Your task to perform on an android device: Clear the shopping cart on target. Search for razer blade on target, select the first entry, and add it to the cart. Image 0: 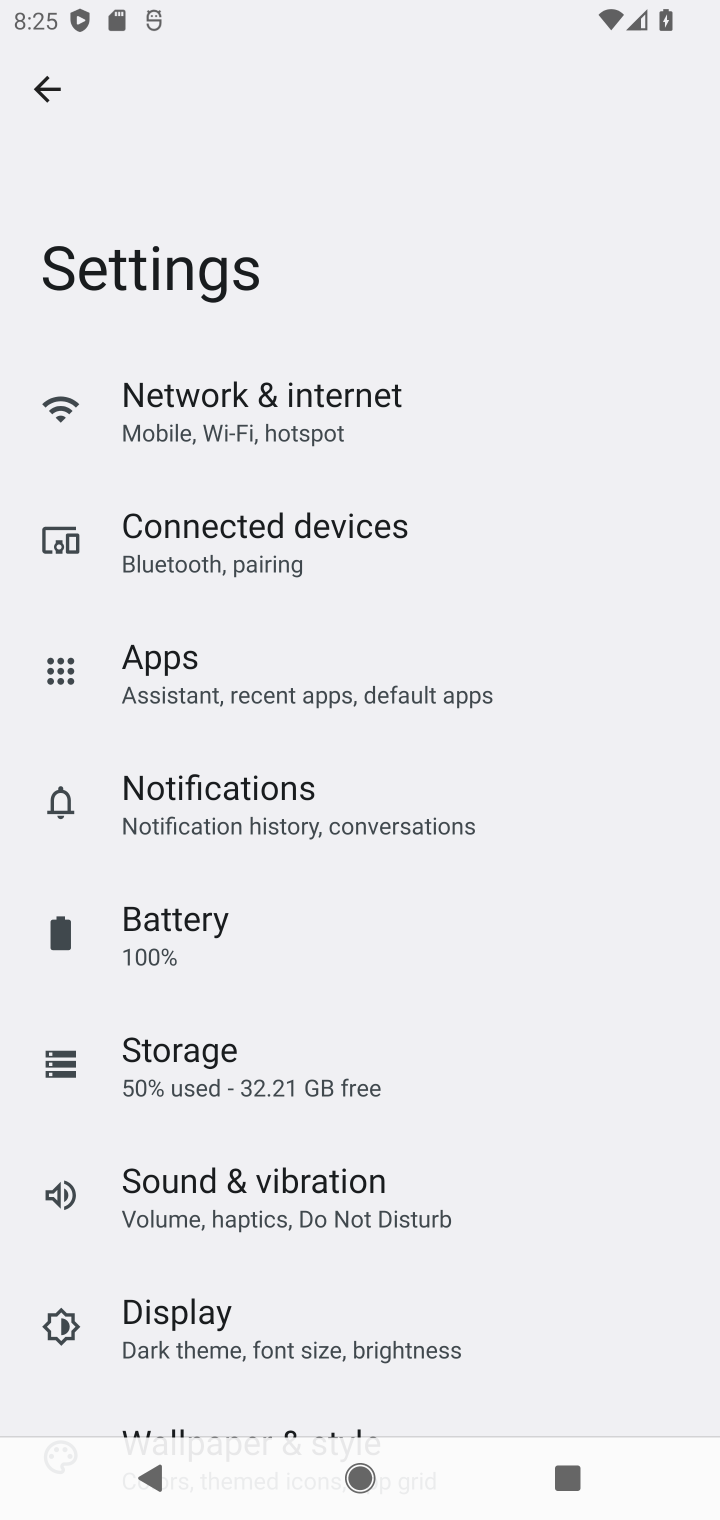
Step 0: press home button
Your task to perform on an android device: Clear the shopping cart on target. Search for razer blade on target, select the first entry, and add it to the cart. Image 1: 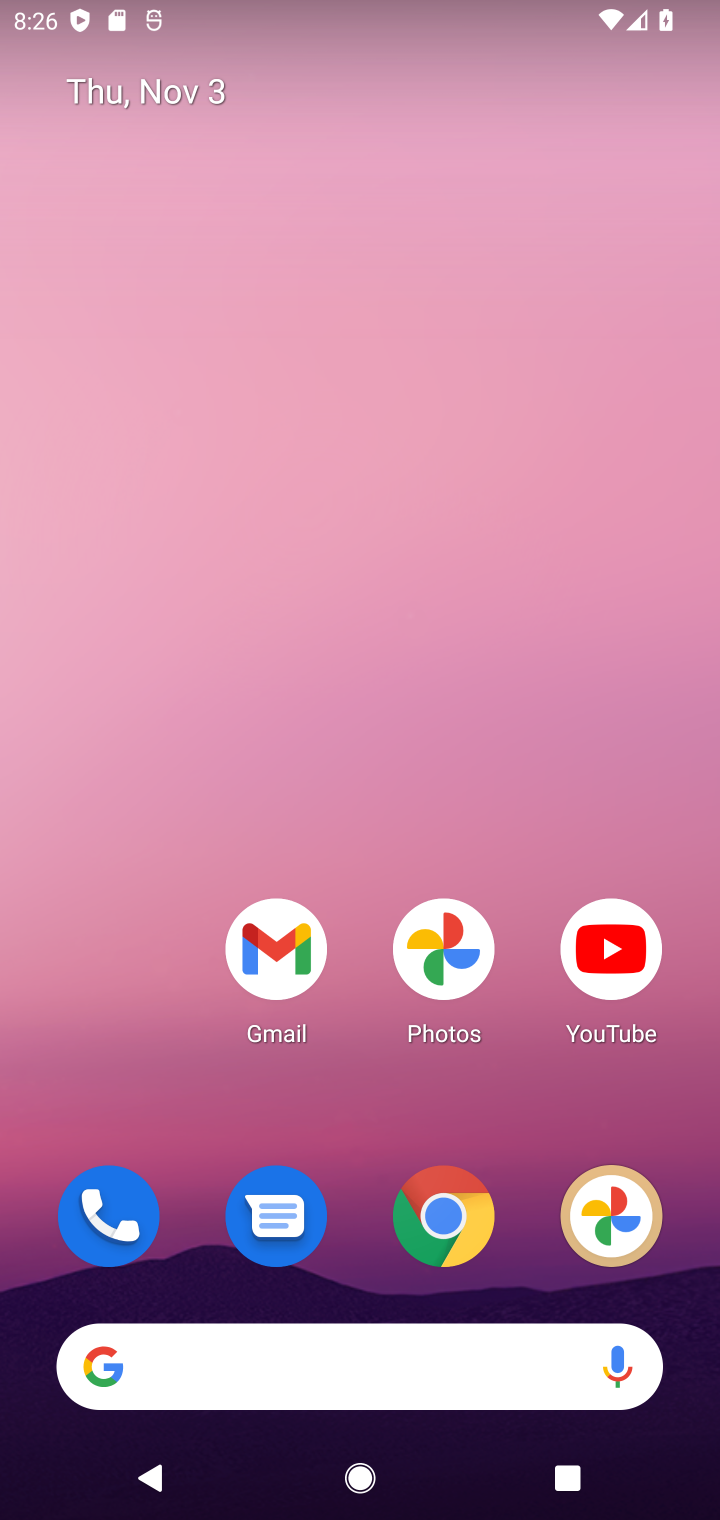
Step 1: click (444, 1248)
Your task to perform on an android device: Clear the shopping cart on target. Search for razer blade on target, select the first entry, and add it to the cart. Image 2: 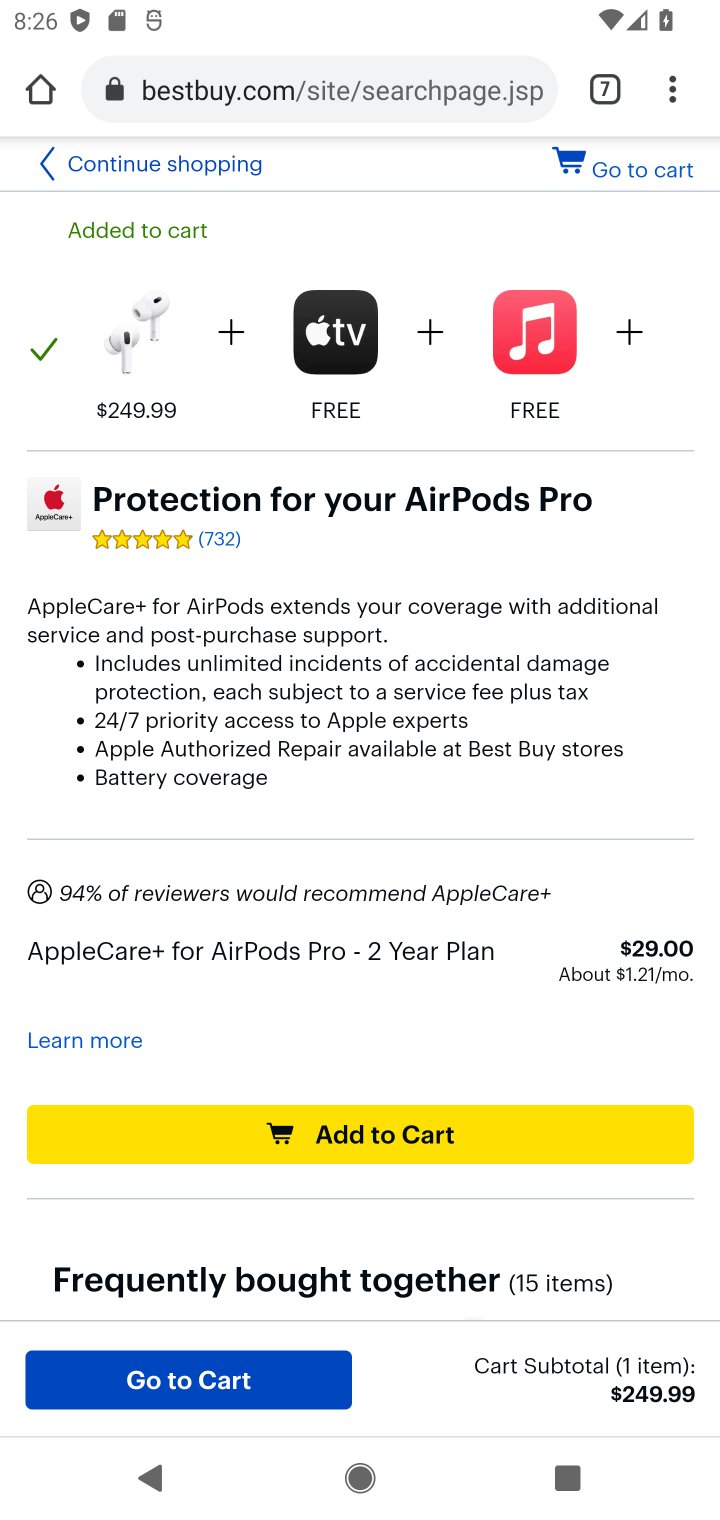
Step 2: click (612, 93)
Your task to perform on an android device: Clear the shopping cart on target. Search for razer blade on target, select the first entry, and add it to the cart. Image 3: 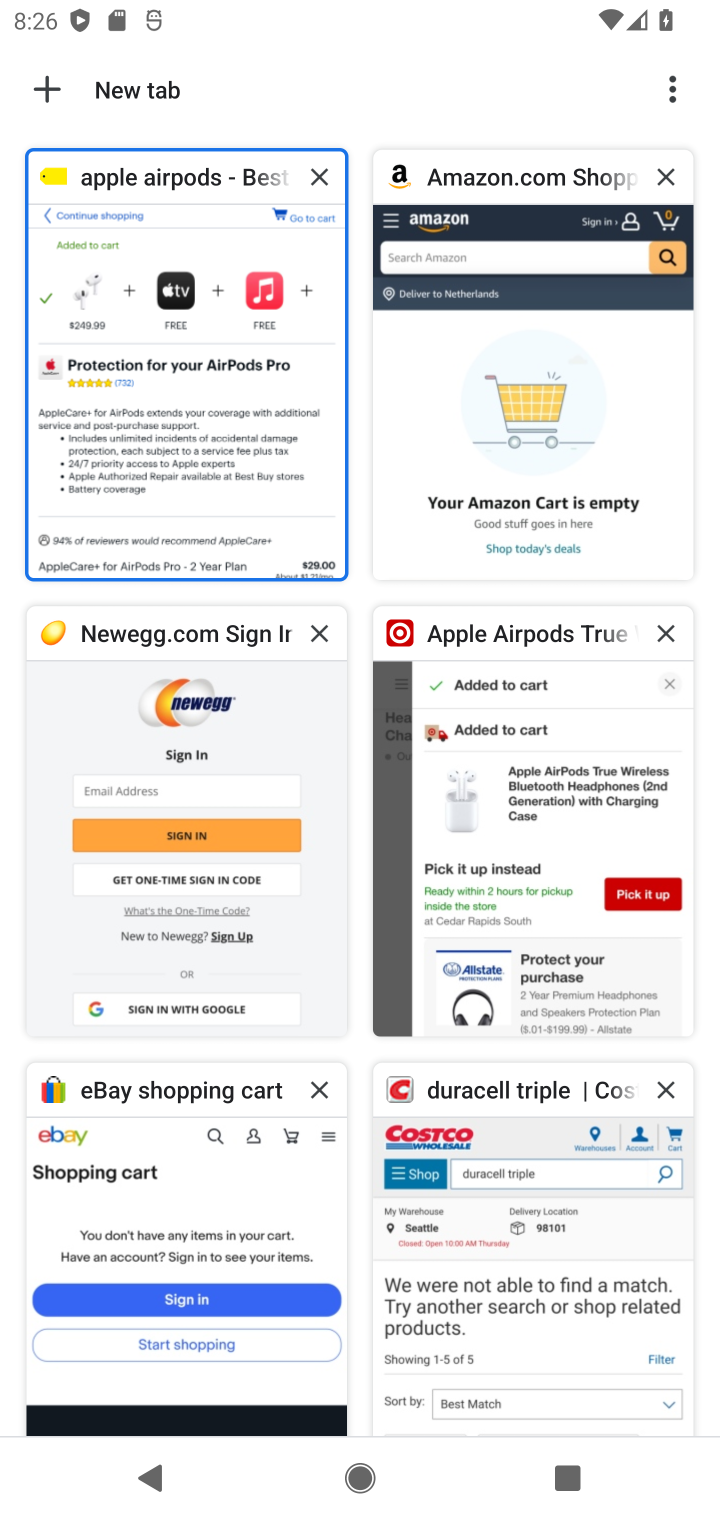
Step 3: click (578, 855)
Your task to perform on an android device: Clear the shopping cart on target. Search for razer blade on target, select the first entry, and add it to the cart. Image 4: 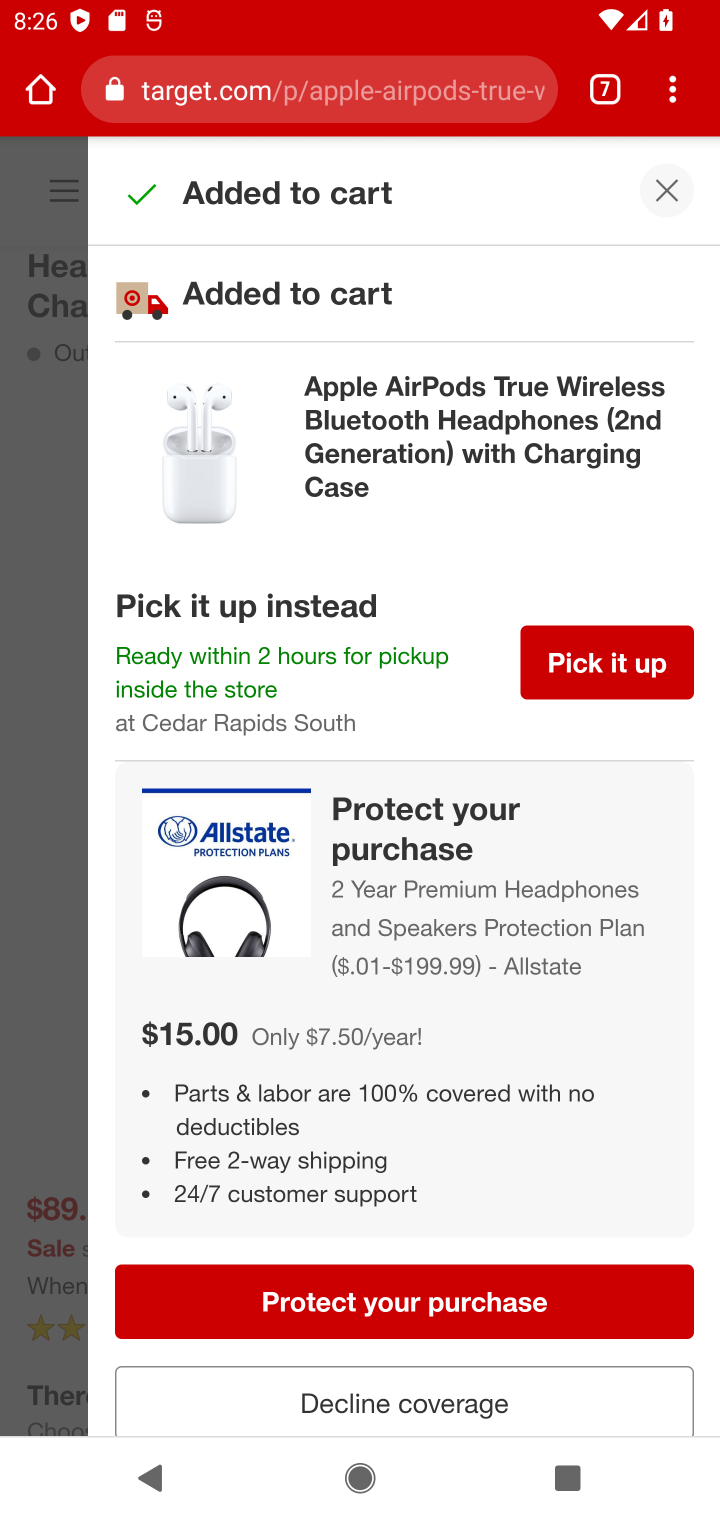
Step 4: click (370, 580)
Your task to perform on an android device: Clear the shopping cart on target. Search for razer blade on target, select the first entry, and add it to the cart. Image 5: 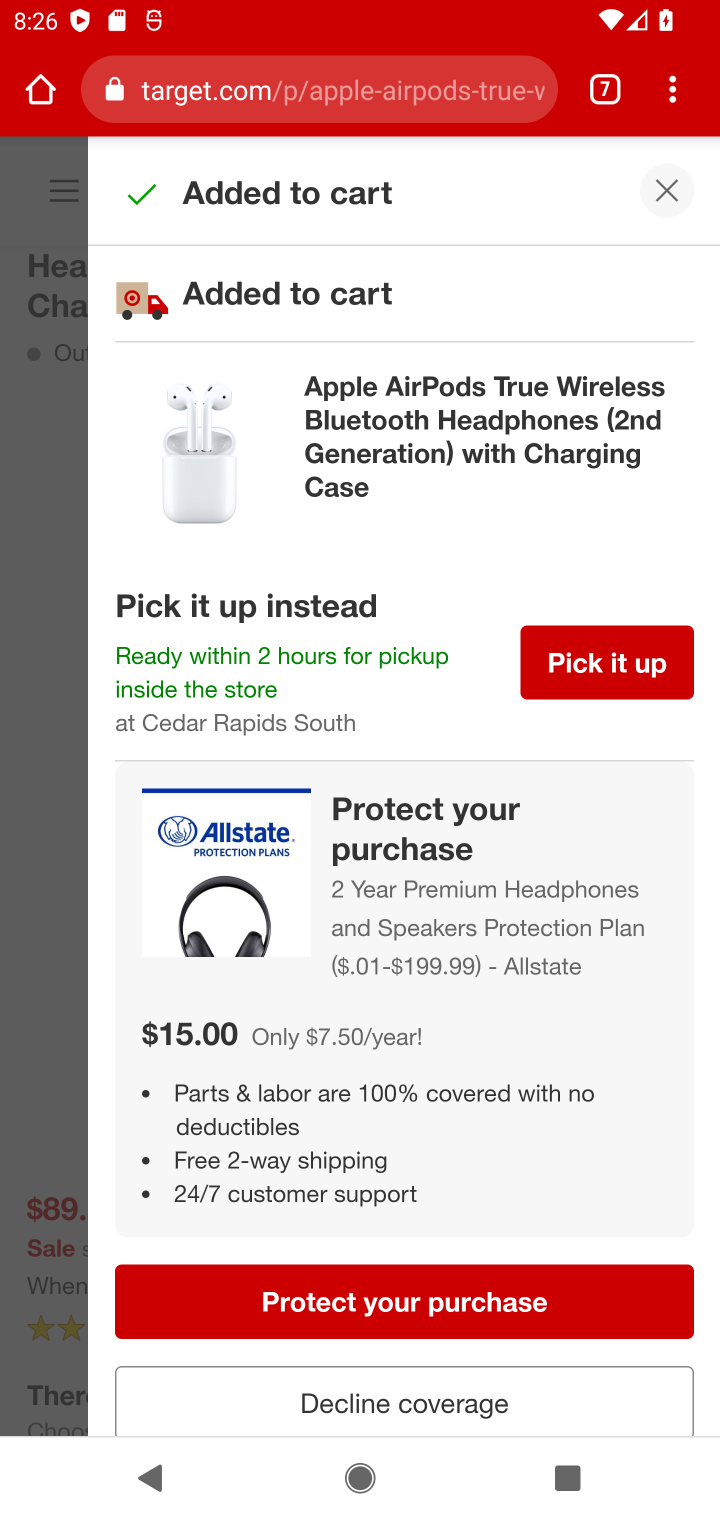
Step 5: click (657, 193)
Your task to perform on an android device: Clear the shopping cart on target. Search for razer blade on target, select the first entry, and add it to the cart. Image 6: 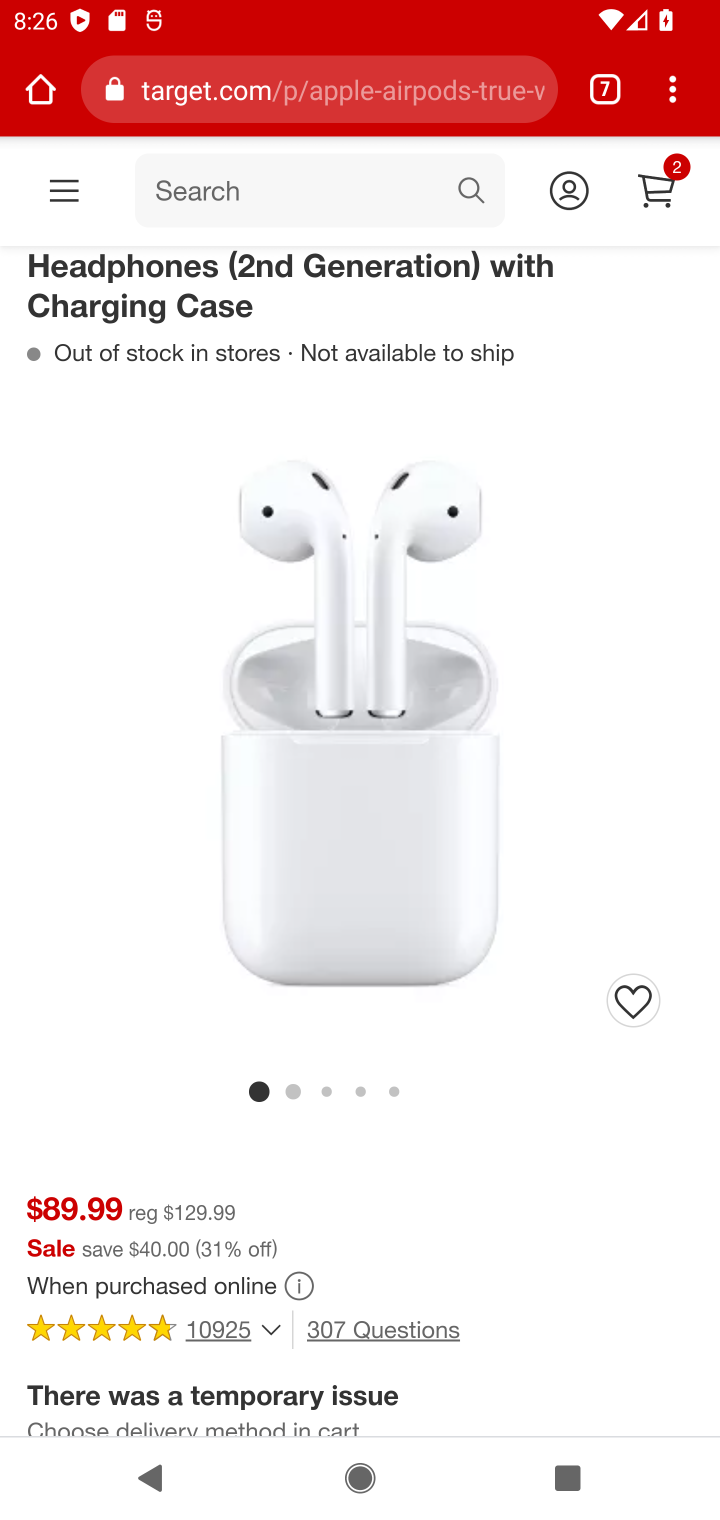
Step 6: click (657, 193)
Your task to perform on an android device: Clear the shopping cart on target. Search for razer blade on target, select the first entry, and add it to the cart. Image 7: 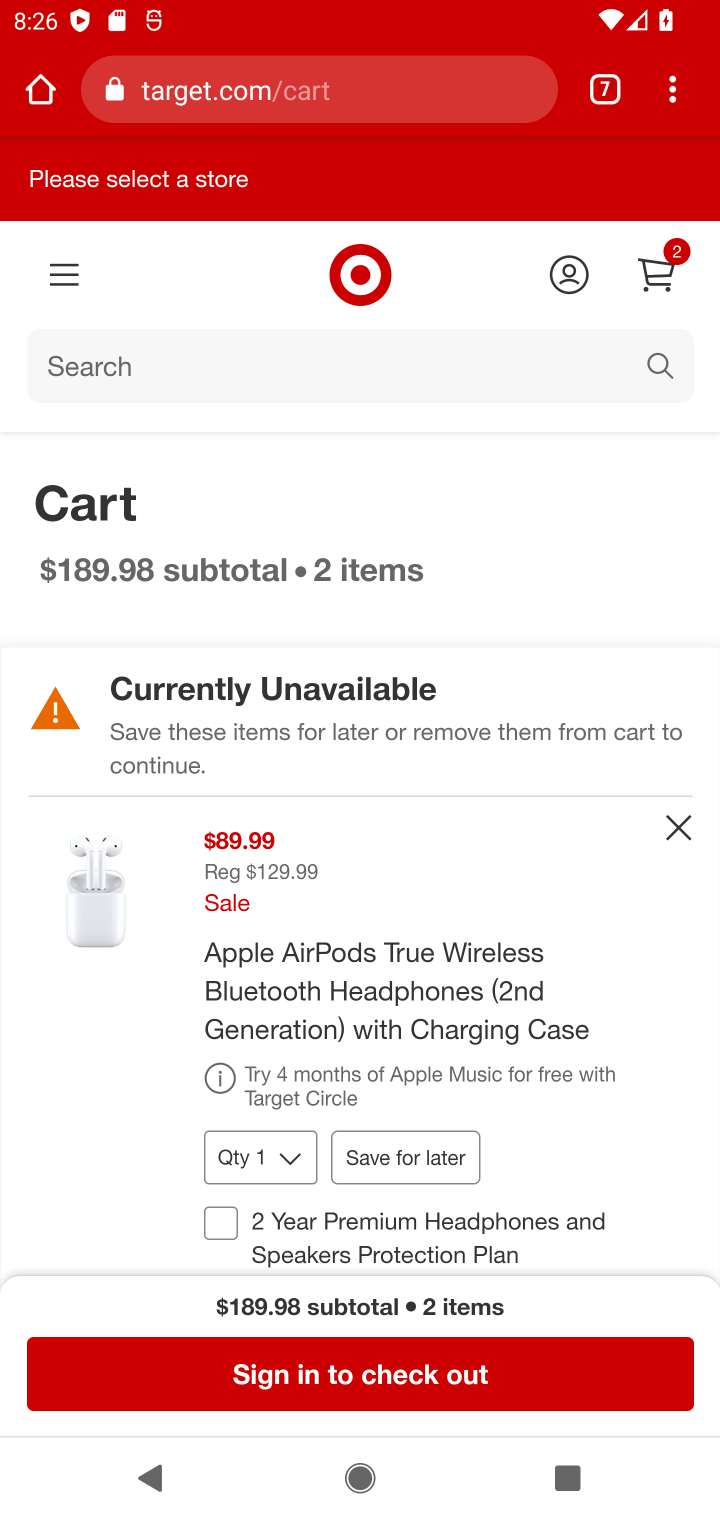
Step 7: click (675, 839)
Your task to perform on an android device: Clear the shopping cart on target. Search for razer blade on target, select the first entry, and add it to the cart. Image 8: 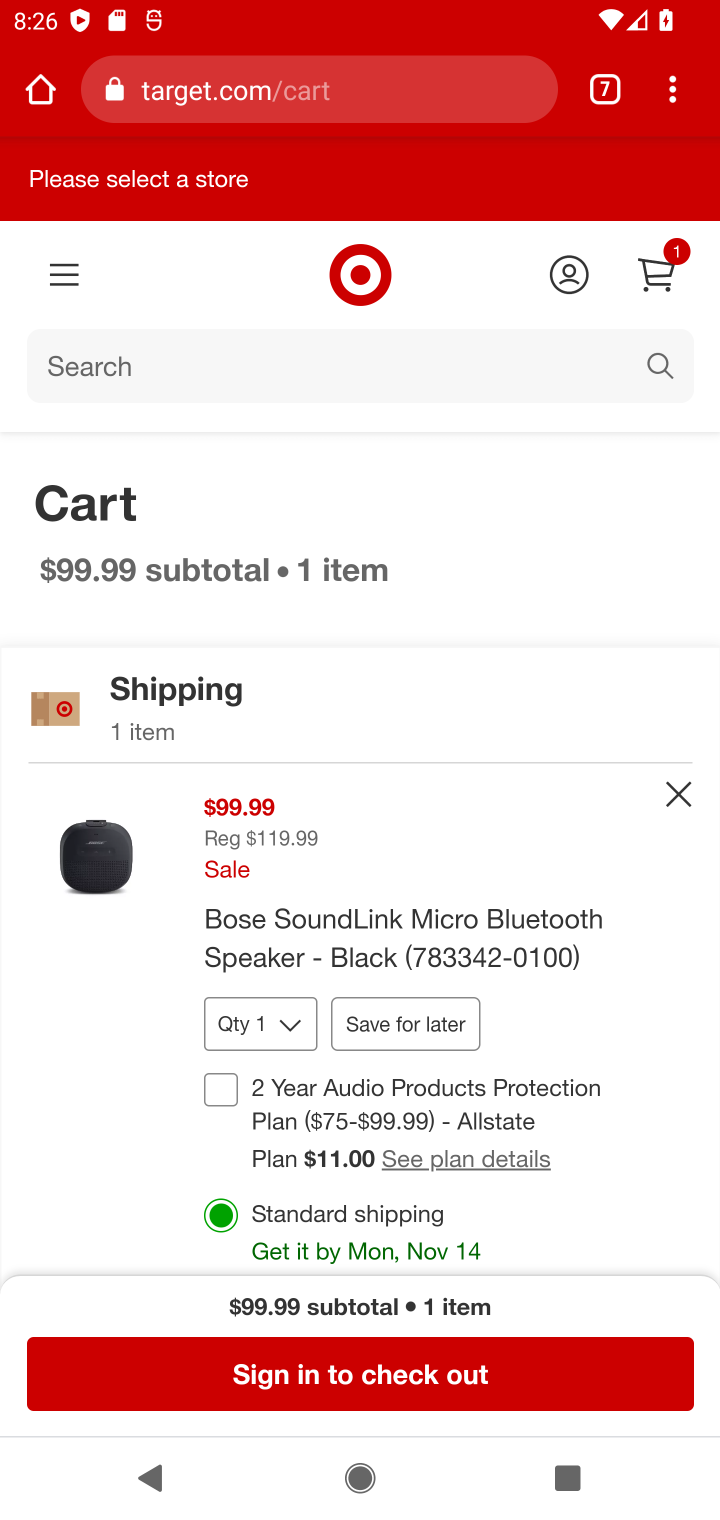
Step 8: click (686, 799)
Your task to perform on an android device: Clear the shopping cart on target. Search for razer blade on target, select the first entry, and add it to the cart. Image 9: 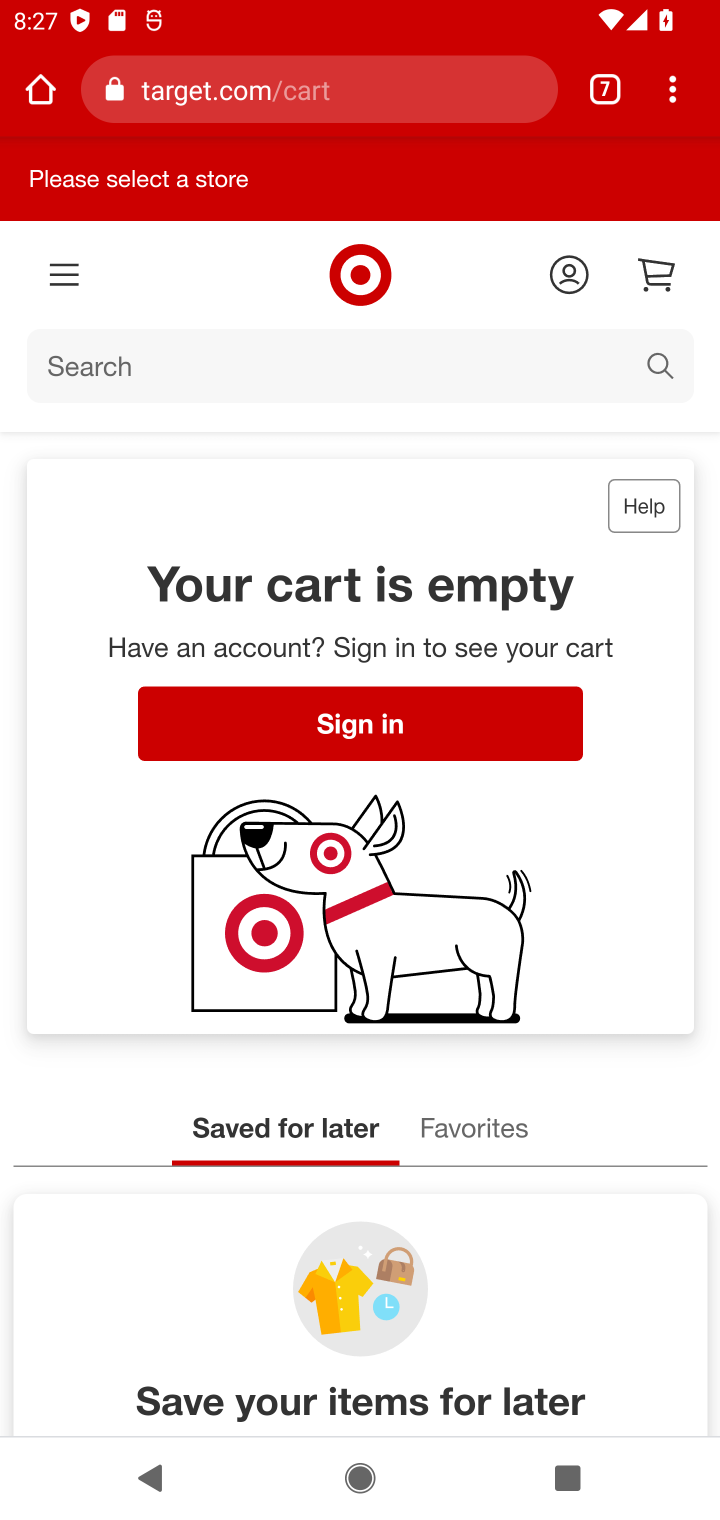
Step 9: click (604, 375)
Your task to perform on an android device: Clear the shopping cart on target. Search for razer blade on target, select the first entry, and add it to the cart. Image 10: 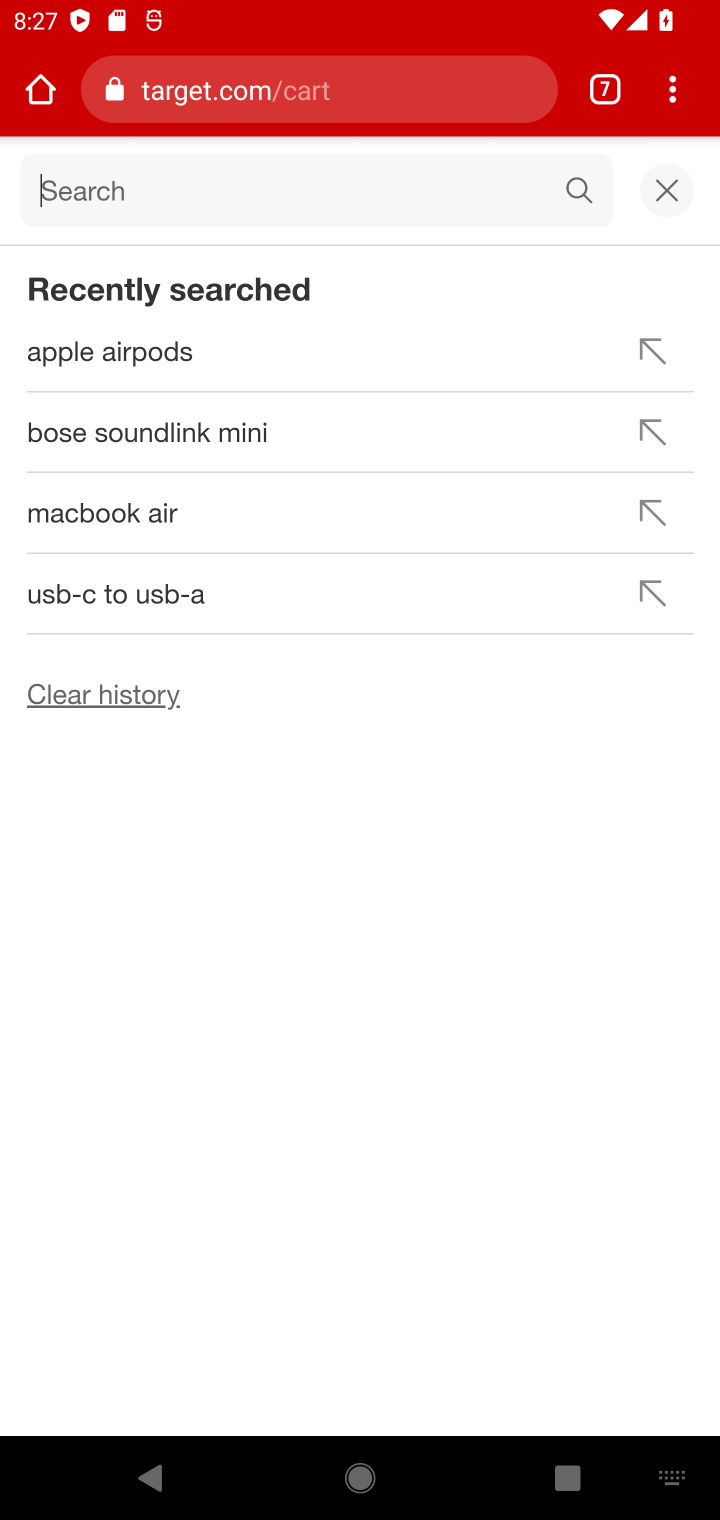
Step 10: type "razer blade"
Your task to perform on an android device: Clear the shopping cart on target. Search for razer blade on target, select the first entry, and add it to the cart. Image 11: 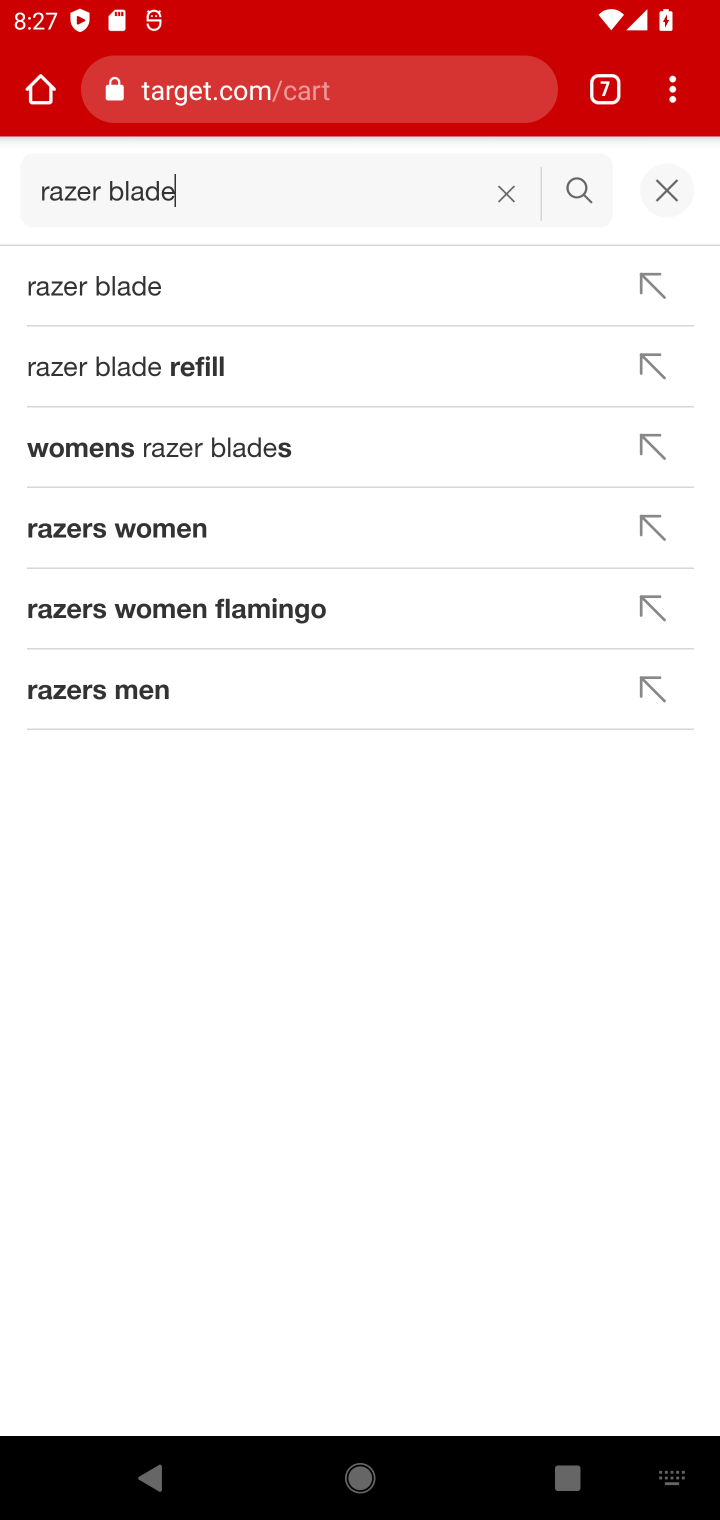
Step 11: press enter
Your task to perform on an android device: Clear the shopping cart on target. Search for razer blade on target, select the first entry, and add it to the cart. Image 12: 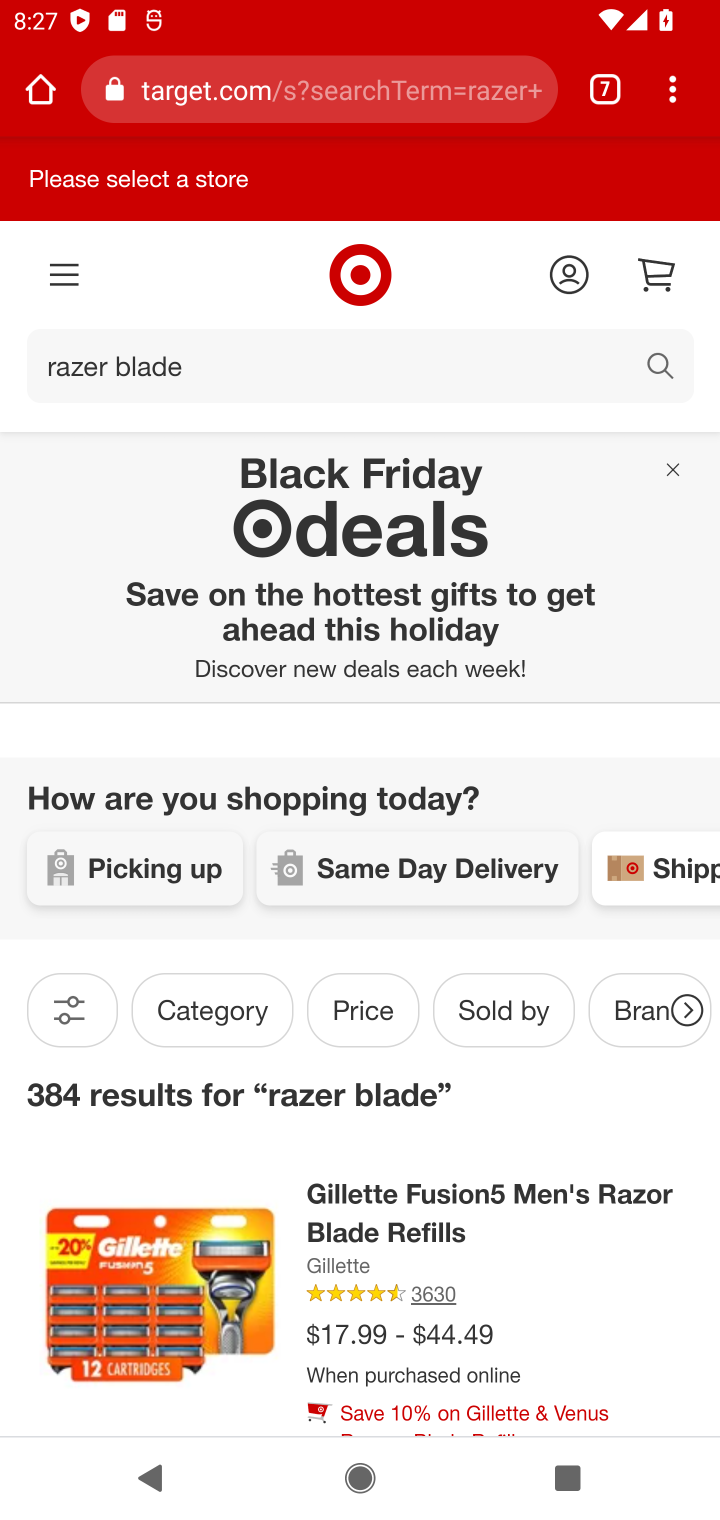
Step 12: drag from (556, 1335) to (549, 1123)
Your task to perform on an android device: Clear the shopping cart on target. Search for razer blade on target, select the first entry, and add it to the cart. Image 13: 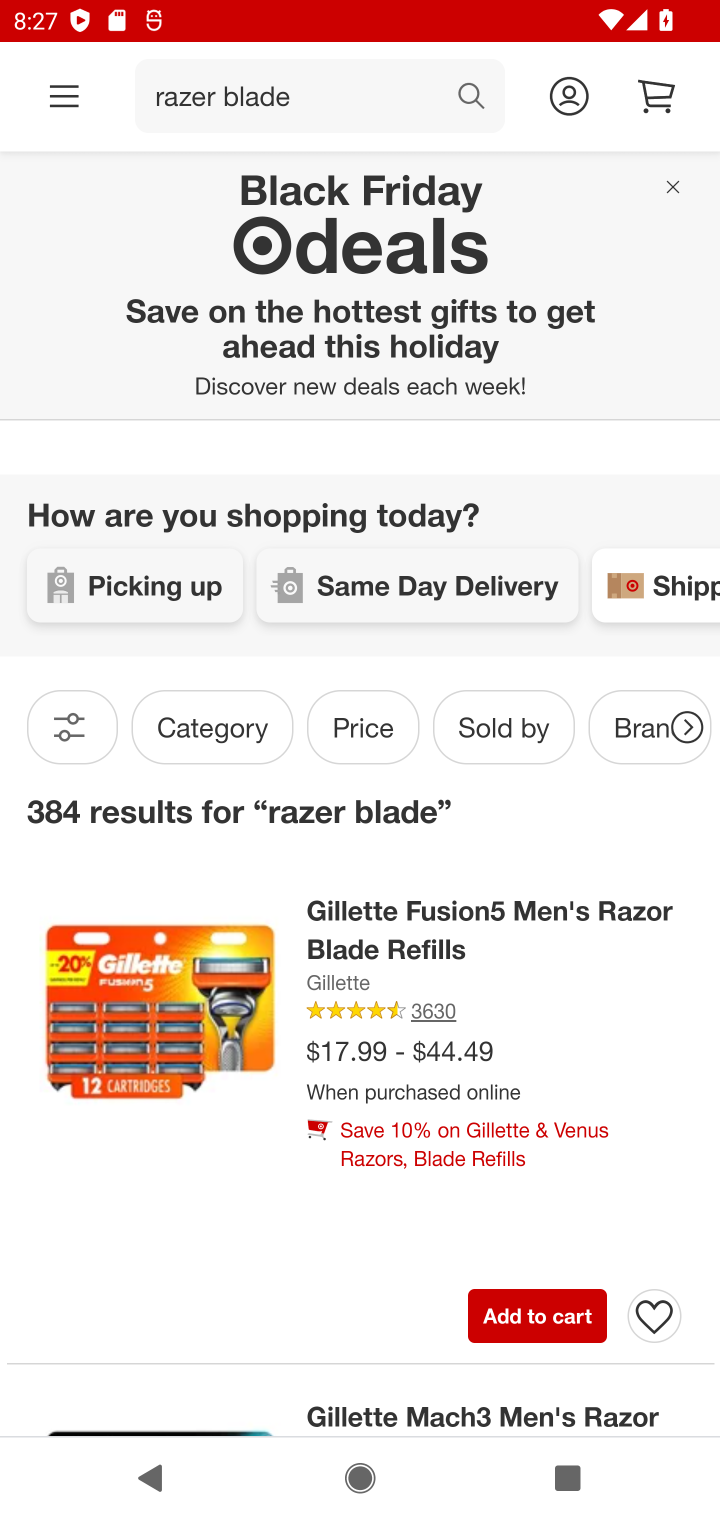
Step 13: click (178, 1090)
Your task to perform on an android device: Clear the shopping cart on target. Search for razer blade on target, select the first entry, and add it to the cart. Image 14: 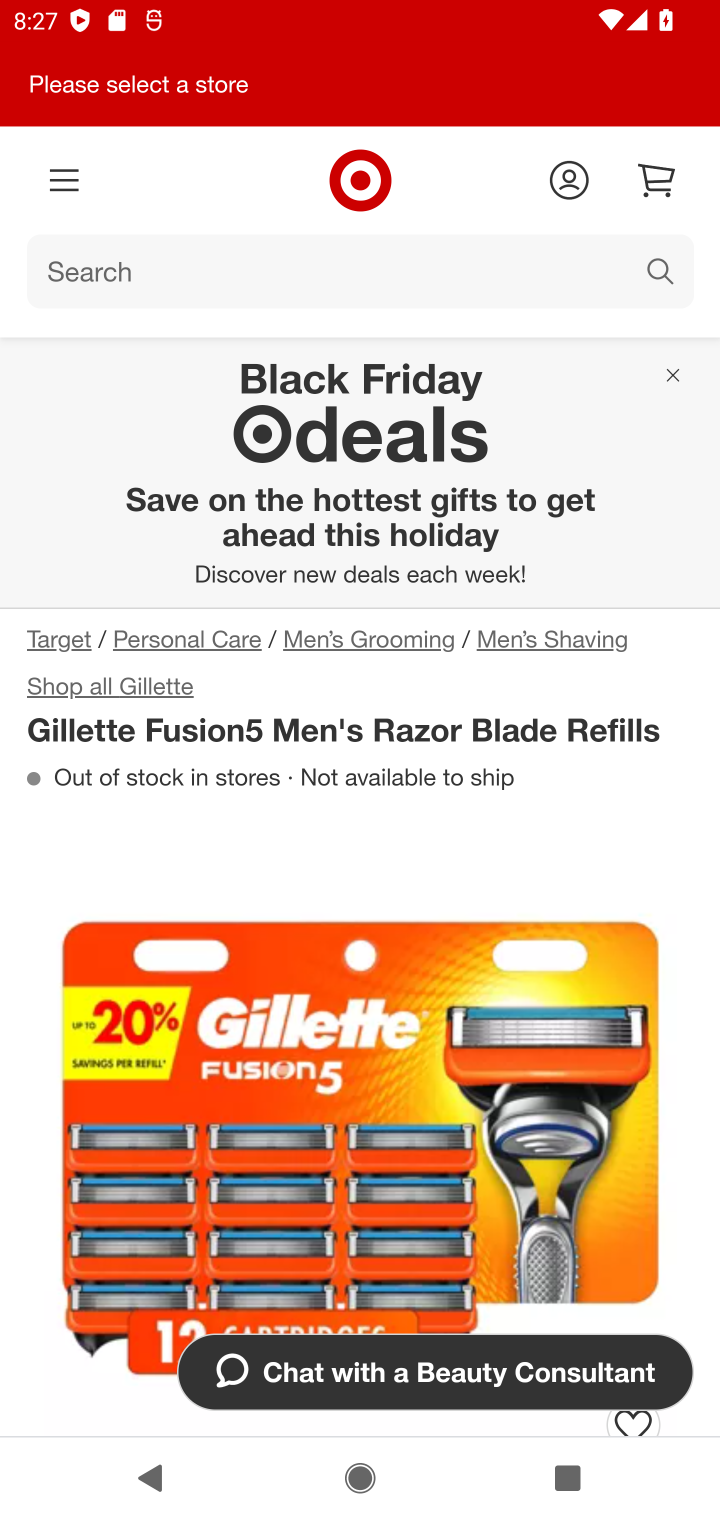
Step 14: drag from (493, 871) to (455, 298)
Your task to perform on an android device: Clear the shopping cart on target. Search for razer blade on target, select the first entry, and add it to the cart. Image 15: 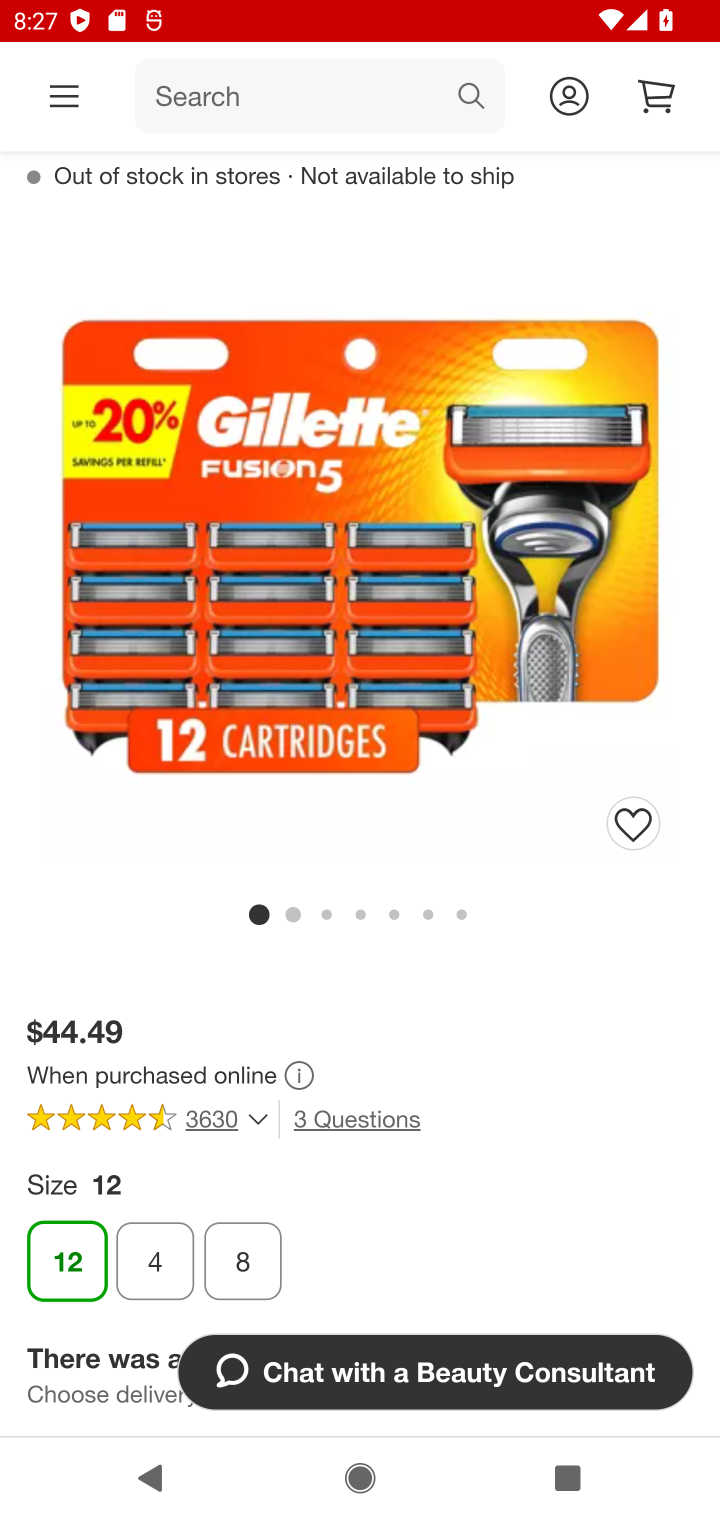
Step 15: drag from (518, 1177) to (432, 520)
Your task to perform on an android device: Clear the shopping cart on target. Search for razer blade on target, select the first entry, and add it to the cart. Image 16: 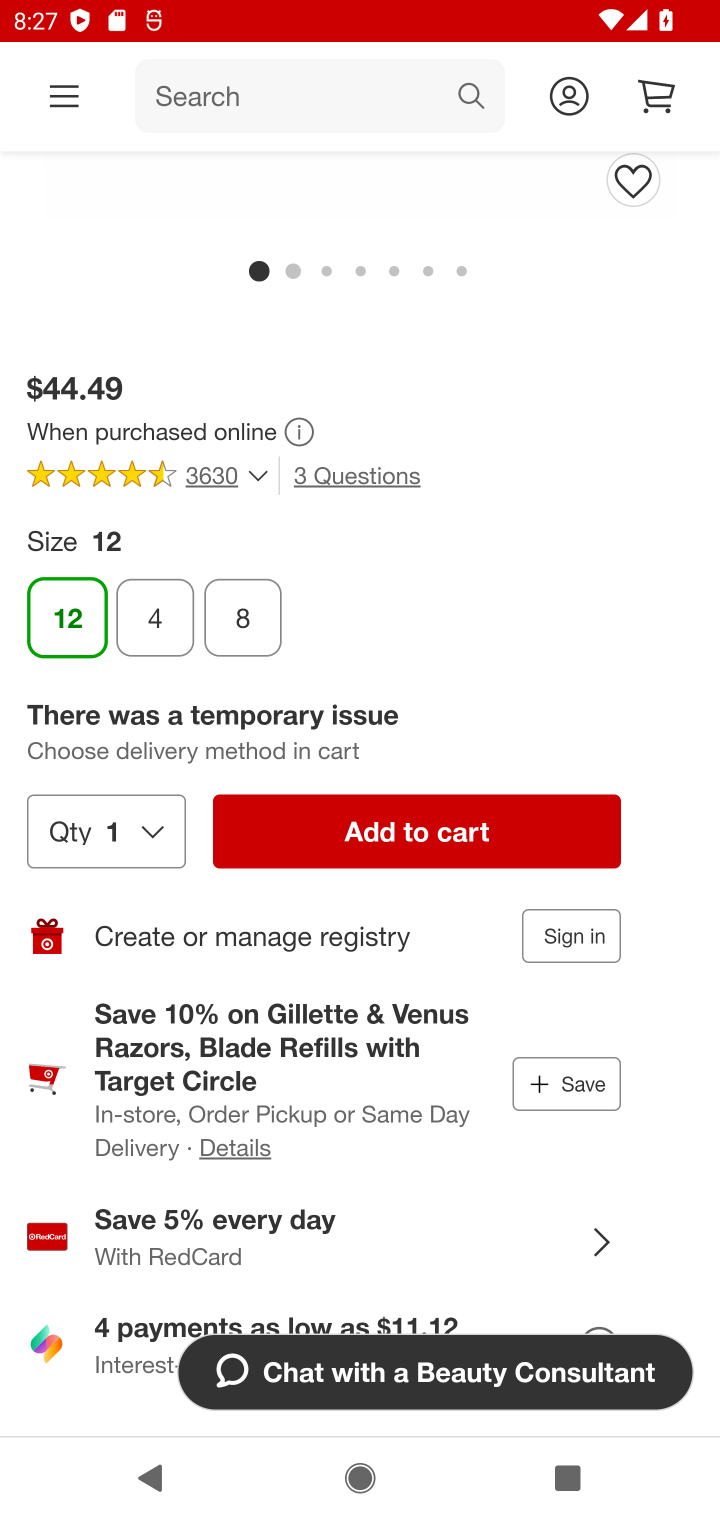
Step 16: click (420, 850)
Your task to perform on an android device: Clear the shopping cart on target. Search for razer blade on target, select the first entry, and add it to the cart. Image 17: 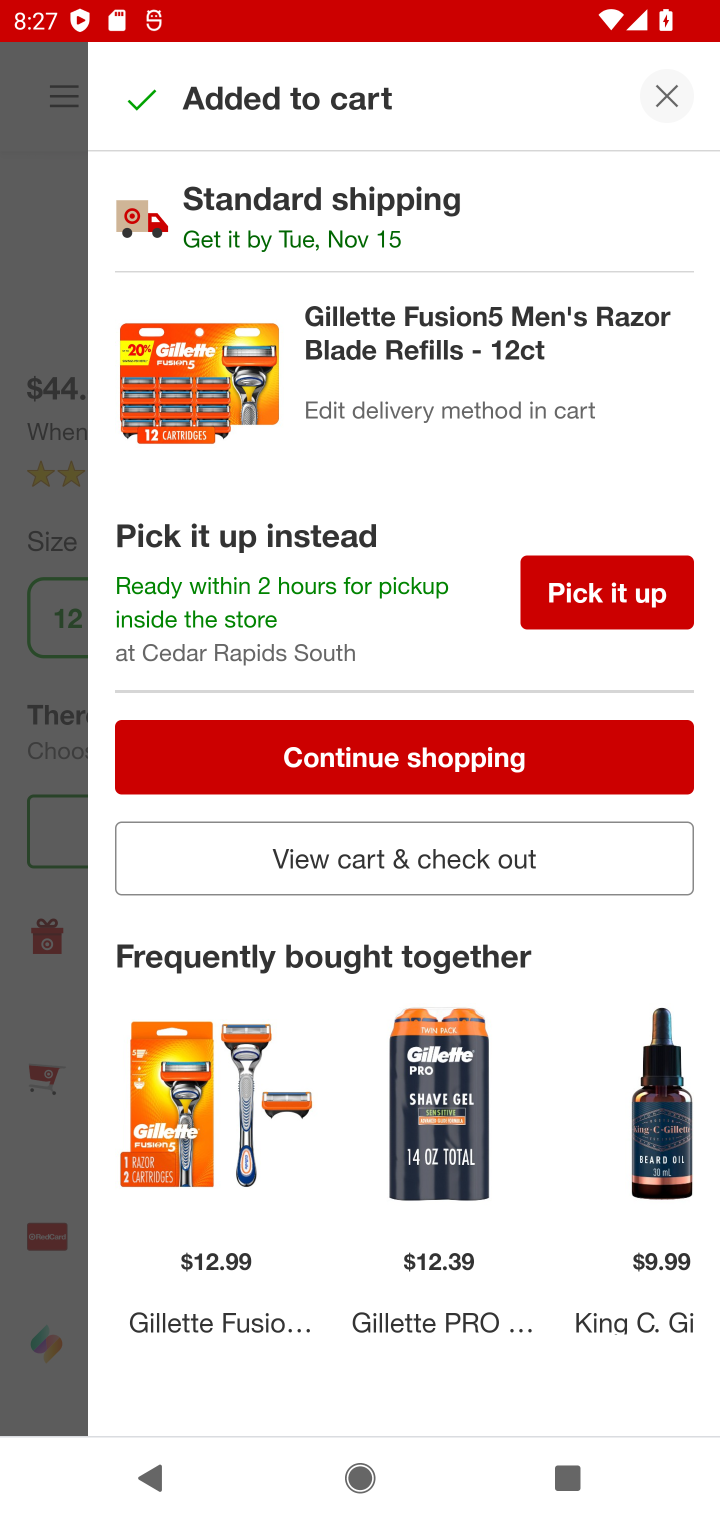
Step 17: task complete